Your task to perform on an android device: delete browsing data in the chrome app Image 0: 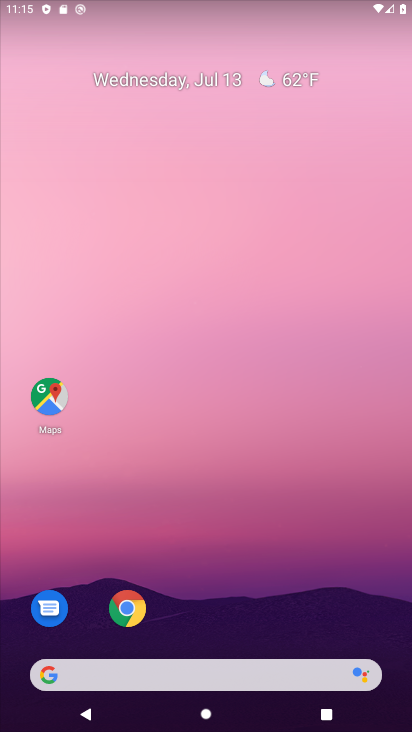
Step 0: drag from (225, 728) to (228, 215)
Your task to perform on an android device: delete browsing data in the chrome app Image 1: 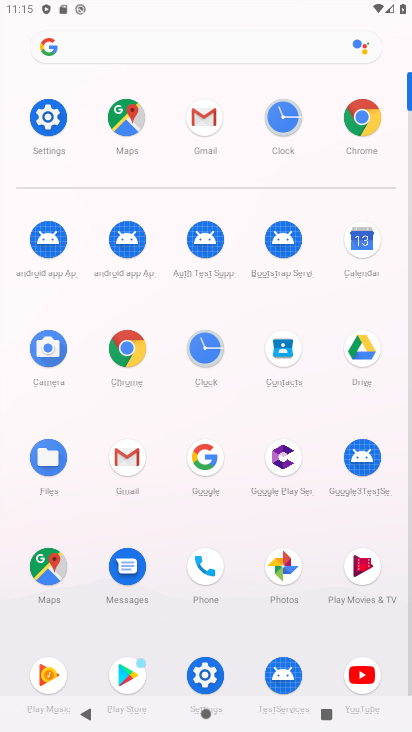
Step 1: click (124, 347)
Your task to perform on an android device: delete browsing data in the chrome app Image 2: 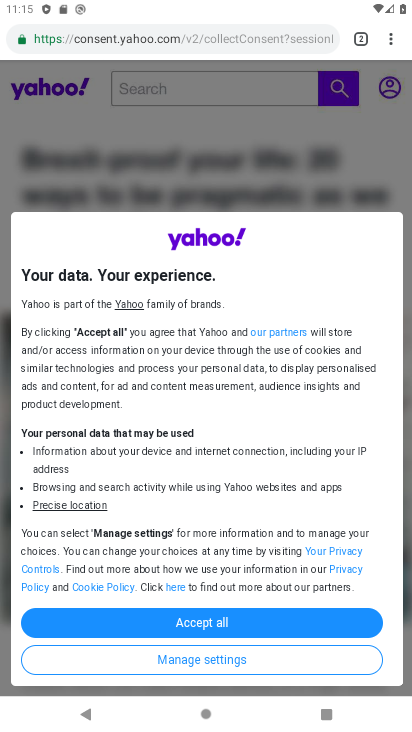
Step 2: click (392, 44)
Your task to perform on an android device: delete browsing data in the chrome app Image 3: 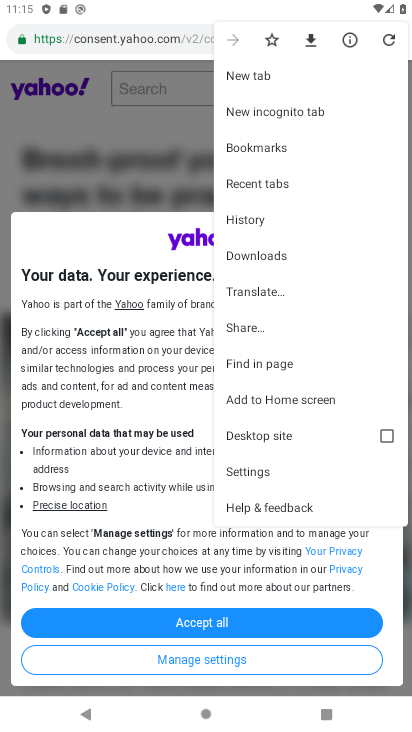
Step 3: click (251, 219)
Your task to perform on an android device: delete browsing data in the chrome app Image 4: 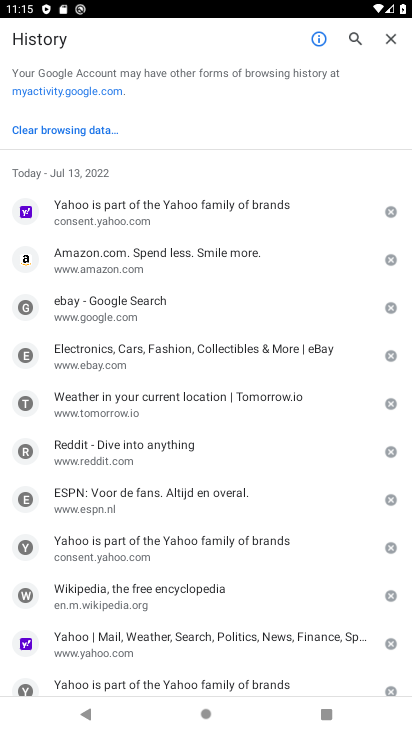
Step 4: click (64, 125)
Your task to perform on an android device: delete browsing data in the chrome app Image 5: 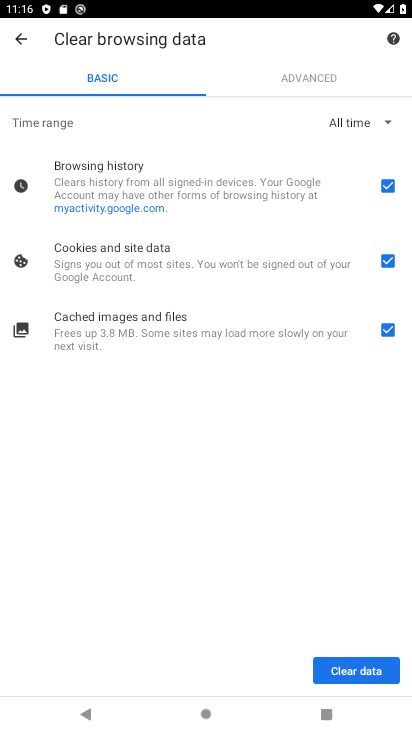
Step 5: click (385, 325)
Your task to perform on an android device: delete browsing data in the chrome app Image 6: 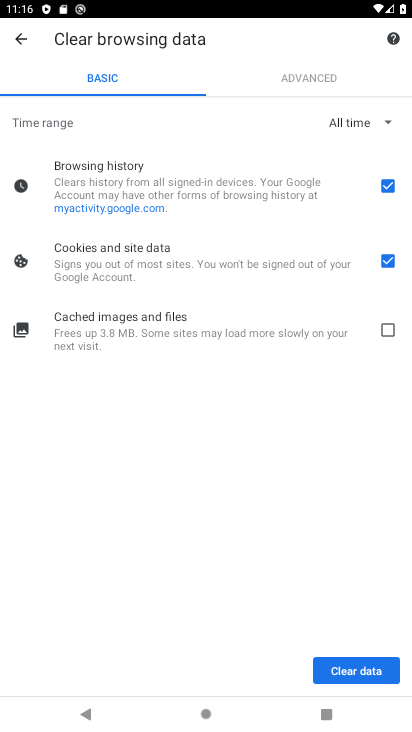
Step 6: click (385, 256)
Your task to perform on an android device: delete browsing data in the chrome app Image 7: 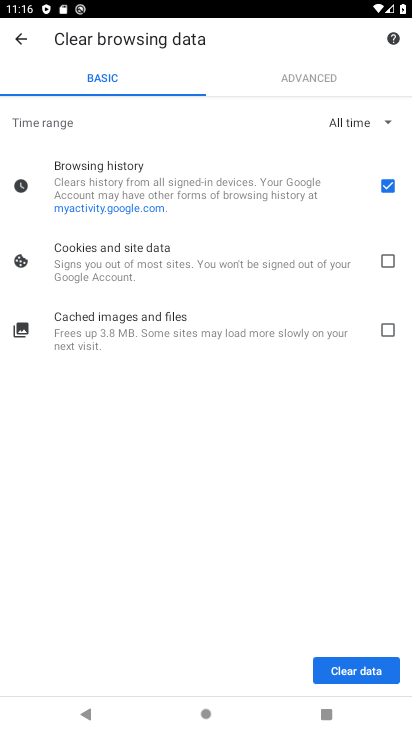
Step 7: click (376, 671)
Your task to perform on an android device: delete browsing data in the chrome app Image 8: 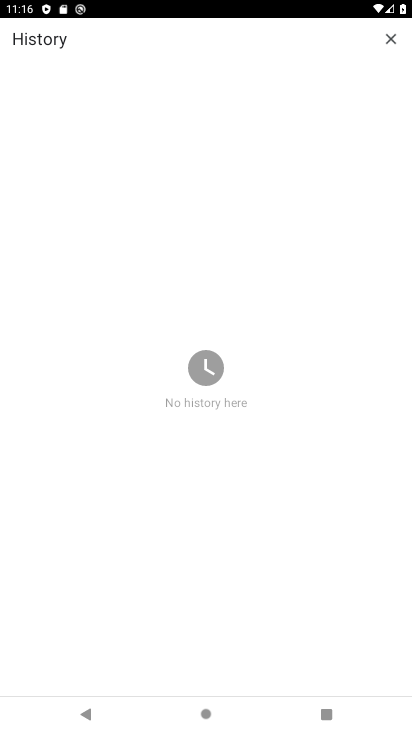
Step 8: task complete